Your task to perform on an android device: What's the weather going to be this weekend? Image 0: 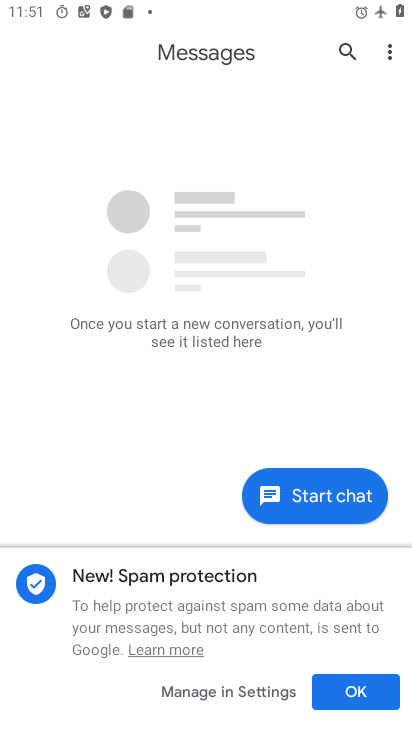
Step 0: press home button
Your task to perform on an android device: What's the weather going to be this weekend? Image 1: 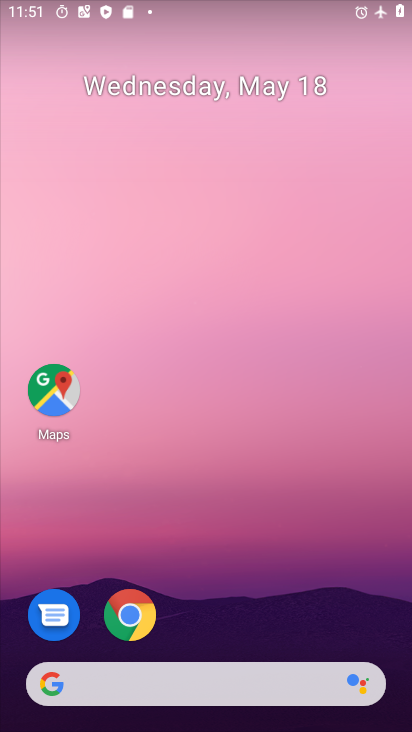
Step 1: click (194, 691)
Your task to perform on an android device: What's the weather going to be this weekend? Image 2: 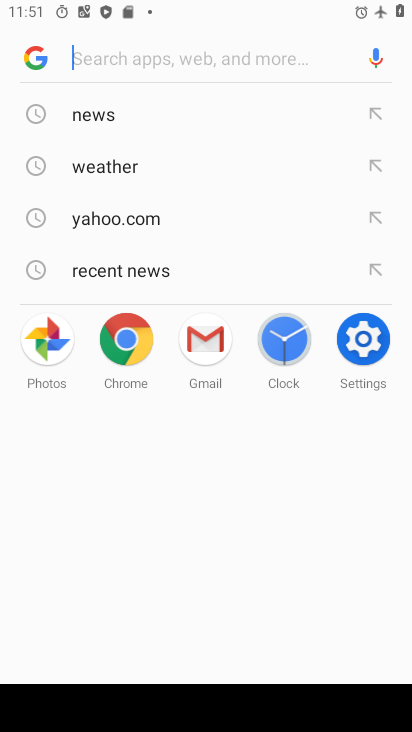
Step 2: click (129, 167)
Your task to perform on an android device: What's the weather going to be this weekend? Image 3: 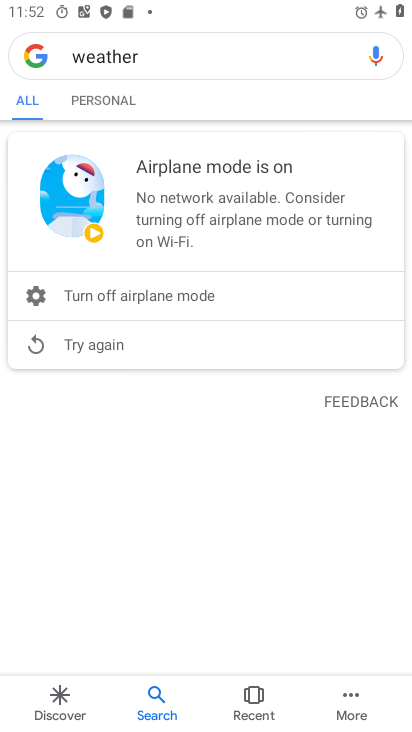
Step 3: task complete